Your task to perform on an android device: Open Google Image 0: 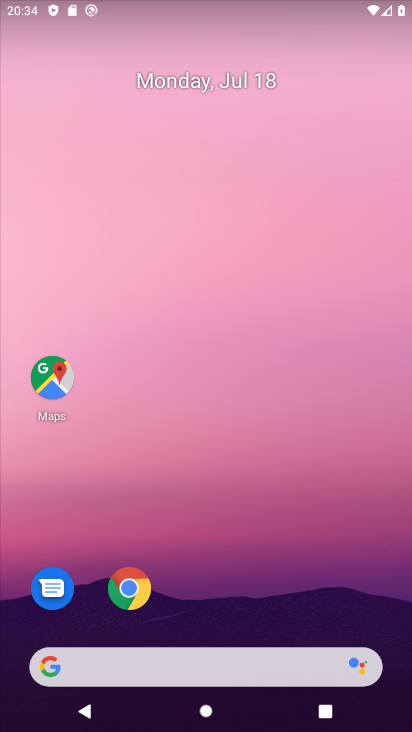
Step 0: drag from (128, 666) to (244, 20)
Your task to perform on an android device: Open Google Image 1: 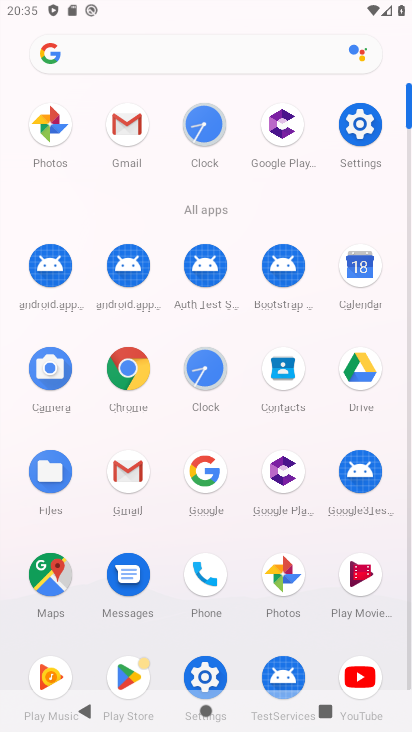
Step 1: click (208, 483)
Your task to perform on an android device: Open Google Image 2: 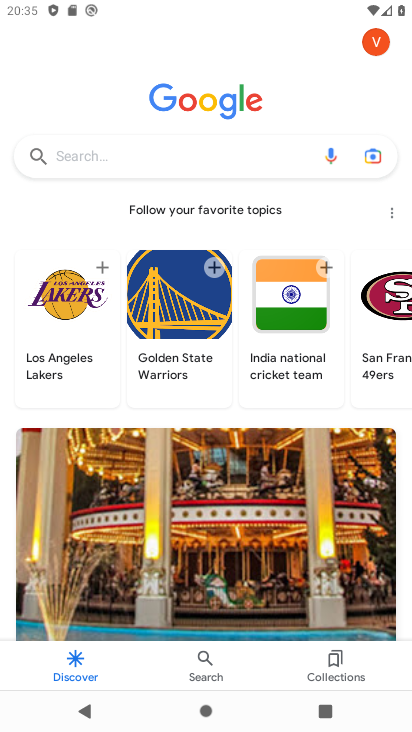
Step 2: task complete